Your task to perform on an android device: clear history in the chrome app Image 0: 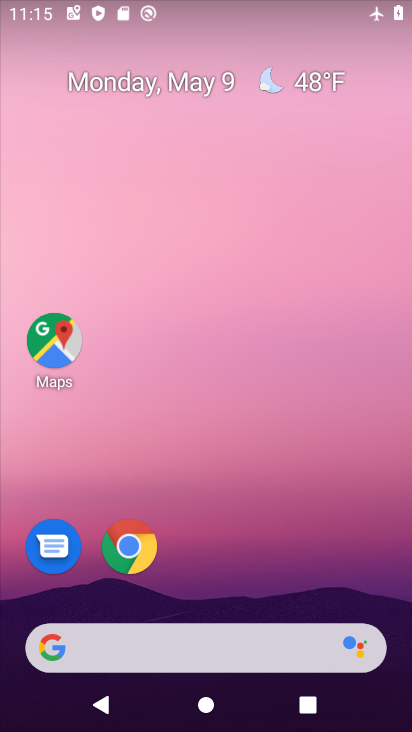
Step 0: click (147, 560)
Your task to perform on an android device: clear history in the chrome app Image 1: 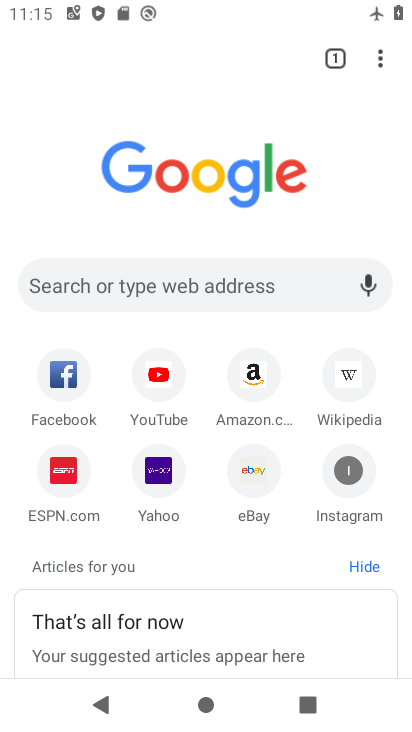
Step 1: click (384, 68)
Your task to perform on an android device: clear history in the chrome app Image 2: 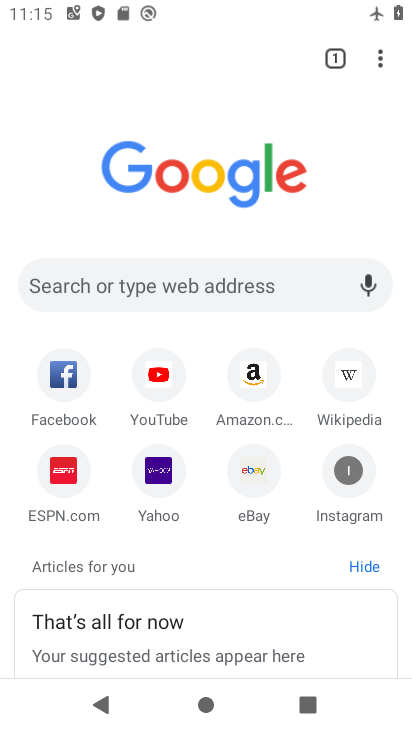
Step 2: drag from (383, 61) to (216, 499)
Your task to perform on an android device: clear history in the chrome app Image 3: 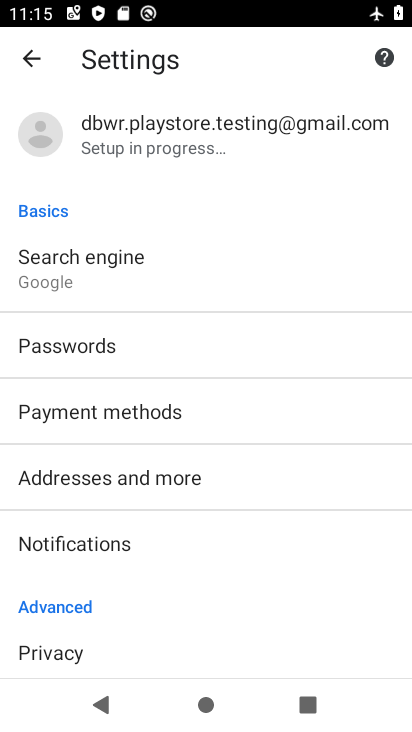
Step 3: click (35, 659)
Your task to perform on an android device: clear history in the chrome app Image 4: 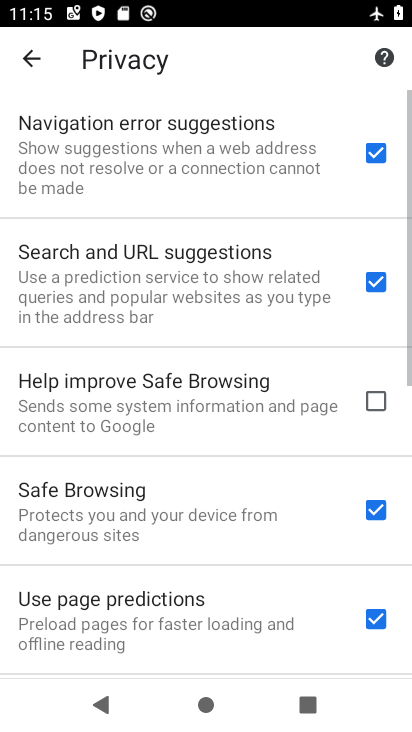
Step 4: drag from (143, 597) to (182, 197)
Your task to perform on an android device: clear history in the chrome app Image 5: 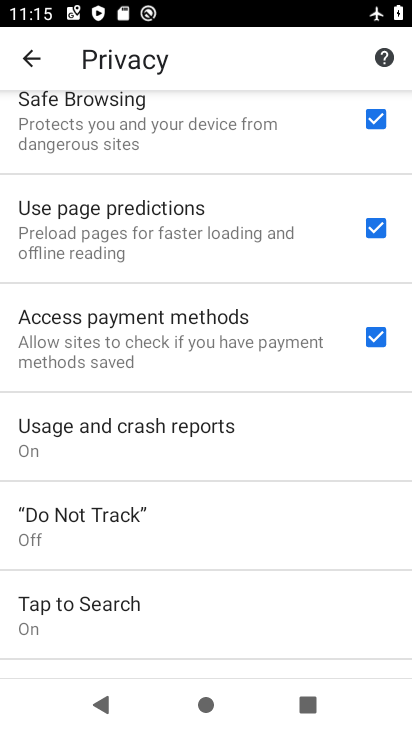
Step 5: drag from (152, 515) to (173, 161)
Your task to perform on an android device: clear history in the chrome app Image 6: 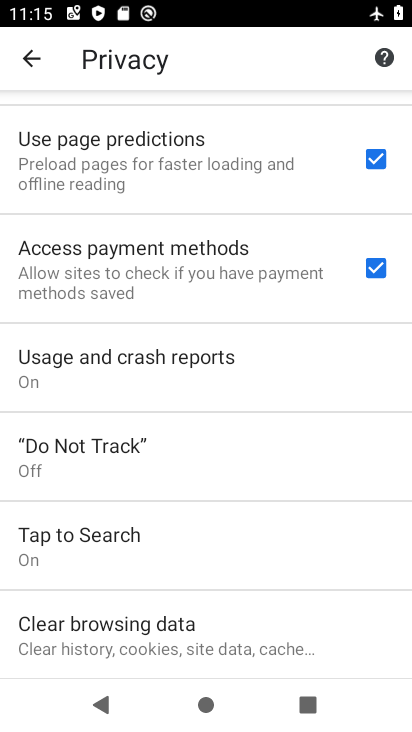
Step 6: click (126, 629)
Your task to perform on an android device: clear history in the chrome app Image 7: 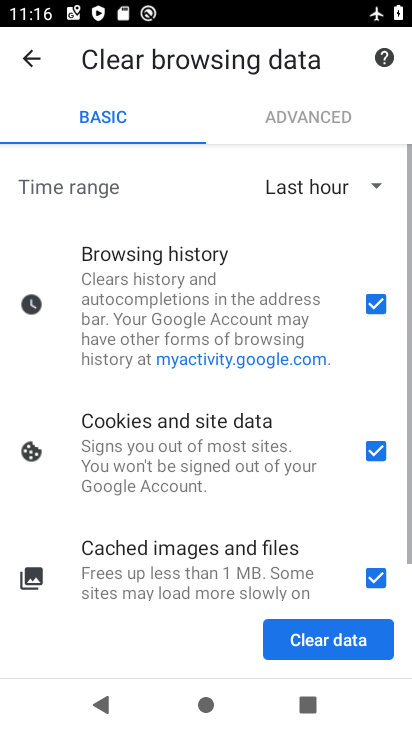
Step 7: click (364, 438)
Your task to perform on an android device: clear history in the chrome app Image 8: 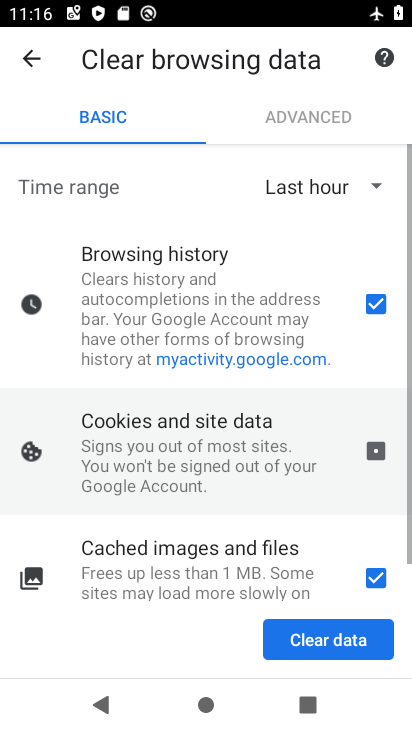
Step 8: click (373, 580)
Your task to perform on an android device: clear history in the chrome app Image 9: 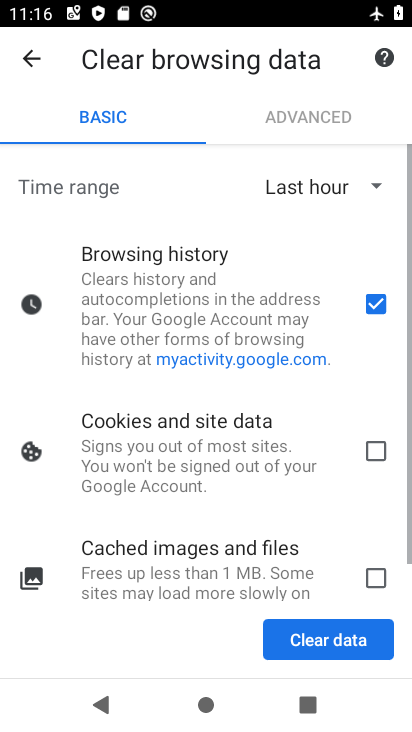
Step 9: drag from (214, 537) to (251, 329)
Your task to perform on an android device: clear history in the chrome app Image 10: 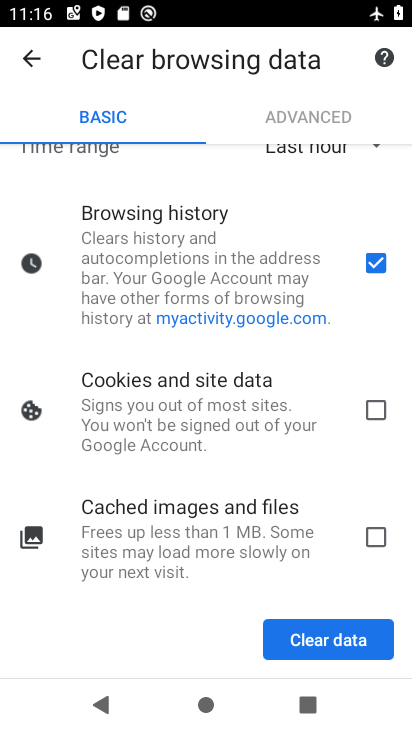
Step 10: click (342, 637)
Your task to perform on an android device: clear history in the chrome app Image 11: 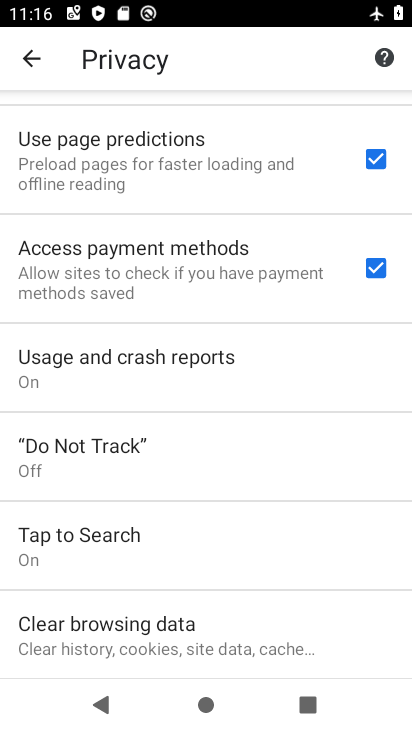
Step 11: task complete